Your task to perform on an android device: Go to CNN.com Image 0: 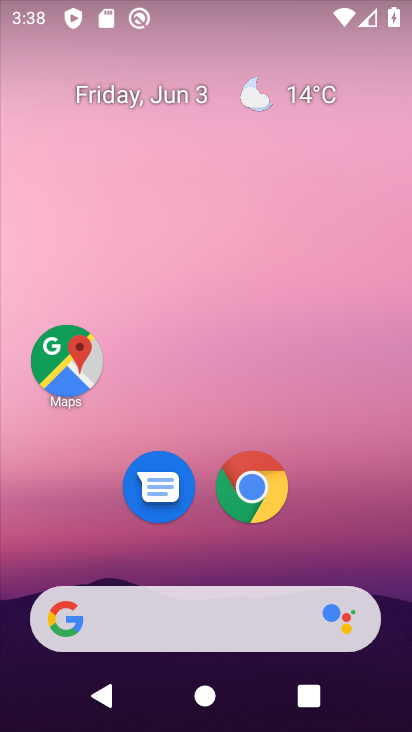
Step 0: click (249, 473)
Your task to perform on an android device: Go to CNN.com Image 1: 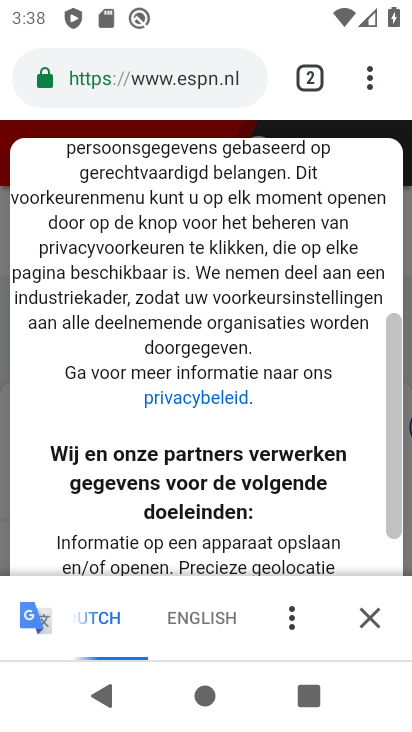
Step 1: click (303, 76)
Your task to perform on an android device: Go to CNN.com Image 2: 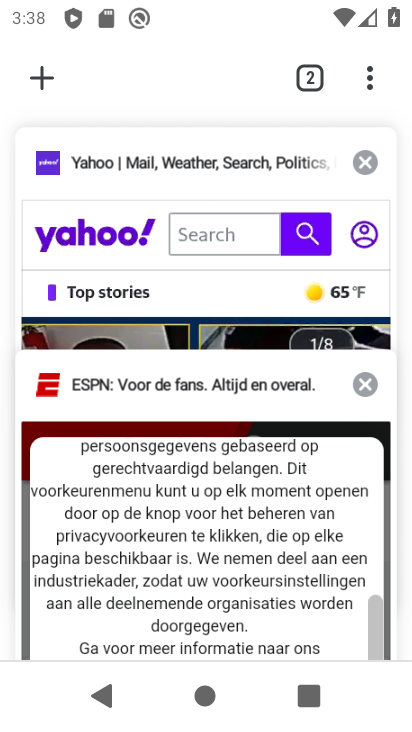
Step 2: click (46, 72)
Your task to perform on an android device: Go to CNN.com Image 3: 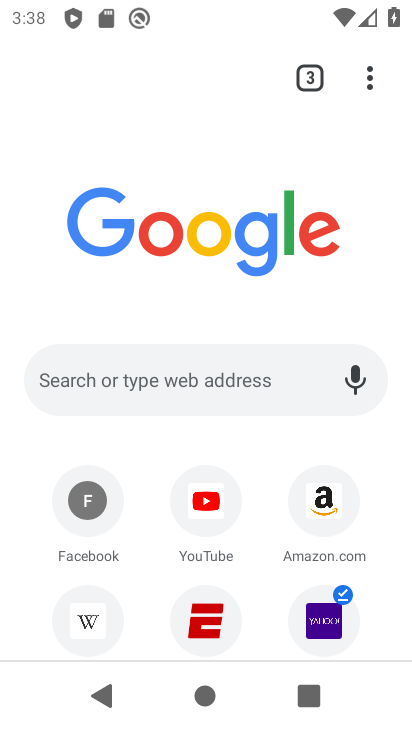
Step 3: click (147, 387)
Your task to perform on an android device: Go to CNN.com Image 4: 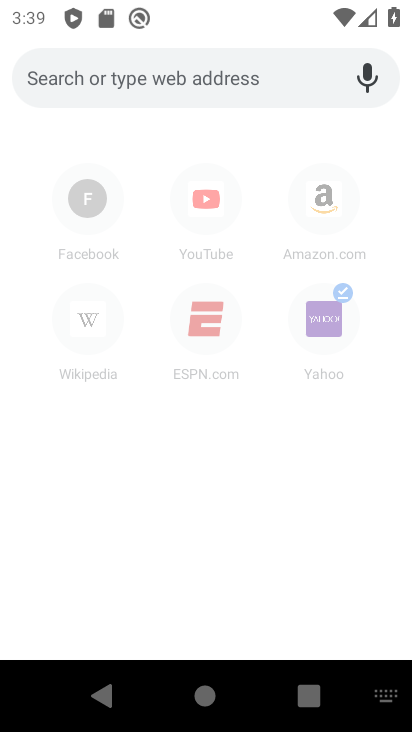
Step 4: type "cnn.com"
Your task to perform on an android device: Go to CNN.com Image 5: 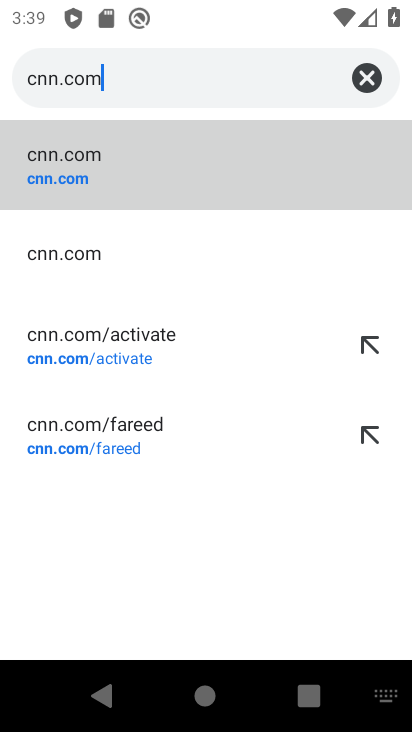
Step 5: click (169, 185)
Your task to perform on an android device: Go to CNN.com Image 6: 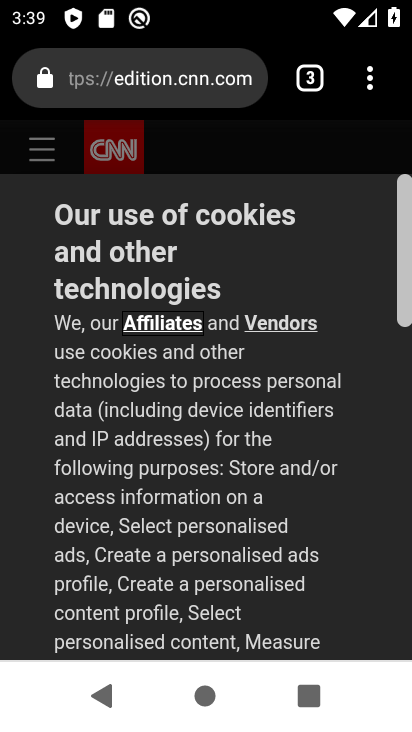
Step 6: task complete